Your task to perform on an android device: add a label to a message in the gmail app Image 0: 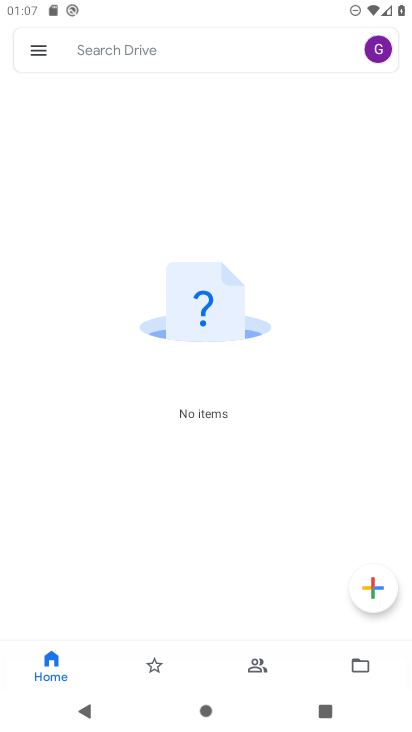
Step 0: press home button
Your task to perform on an android device: add a label to a message in the gmail app Image 1: 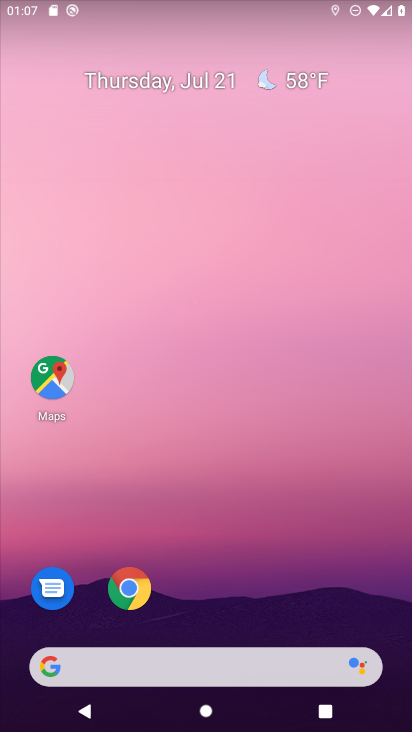
Step 1: drag from (214, 590) to (408, 79)
Your task to perform on an android device: add a label to a message in the gmail app Image 2: 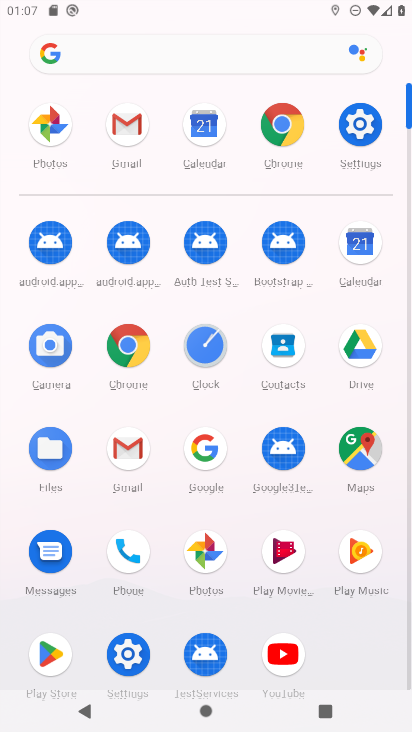
Step 2: click (131, 463)
Your task to perform on an android device: add a label to a message in the gmail app Image 3: 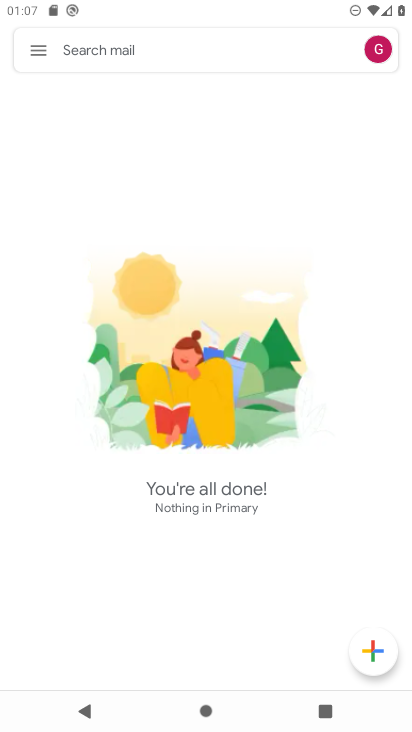
Step 3: task complete